Your task to perform on an android device: turn on airplane mode Image 0: 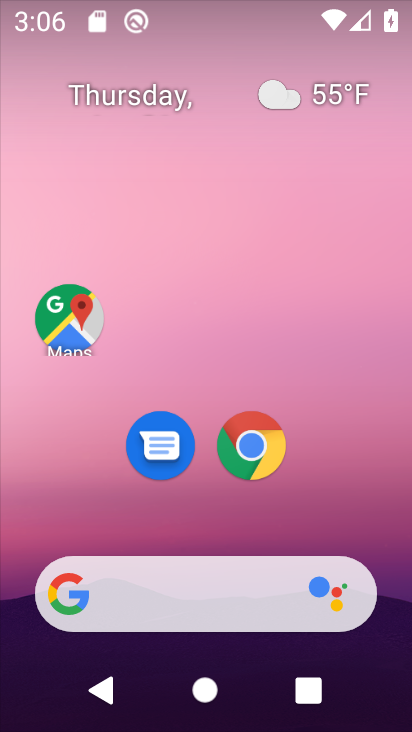
Step 0: drag from (310, 493) to (327, 160)
Your task to perform on an android device: turn on airplane mode Image 1: 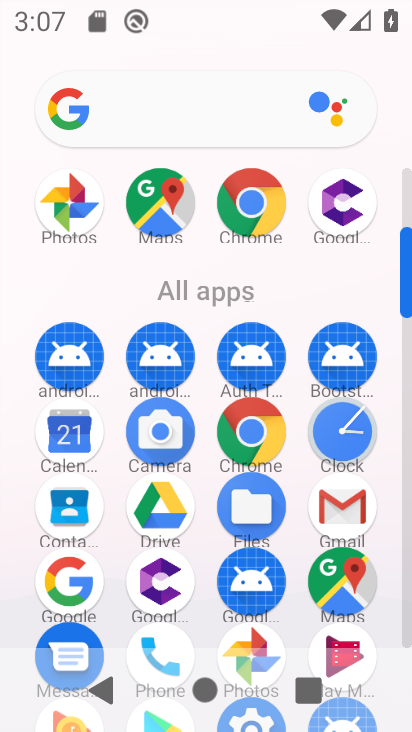
Step 1: drag from (297, 602) to (334, 362)
Your task to perform on an android device: turn on airplane mode Image 2: 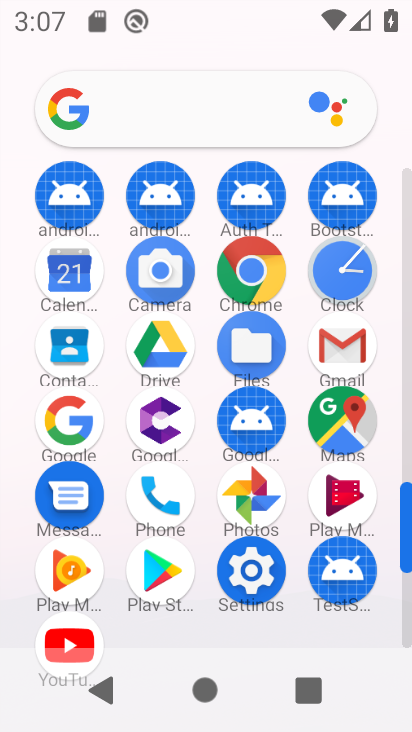
Step 2: click (270, 572)
Your task to perform on an android device: turn on airplane mode Image 3: 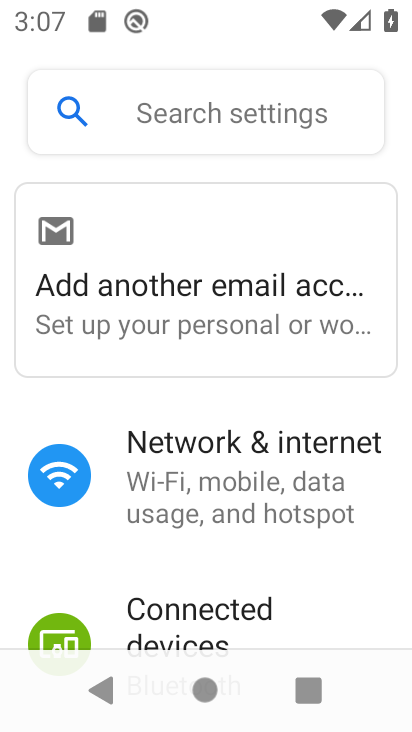
Step 3: click (265, 488)
Your task to perform on an android device: turn on airplane mode Image 4: 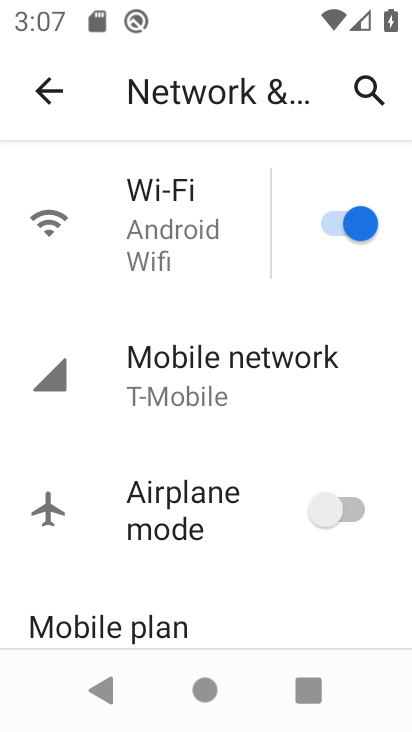
Step 4: click (334, 520)
Your task to perform on an android device: turn on airplane mode Image 5: 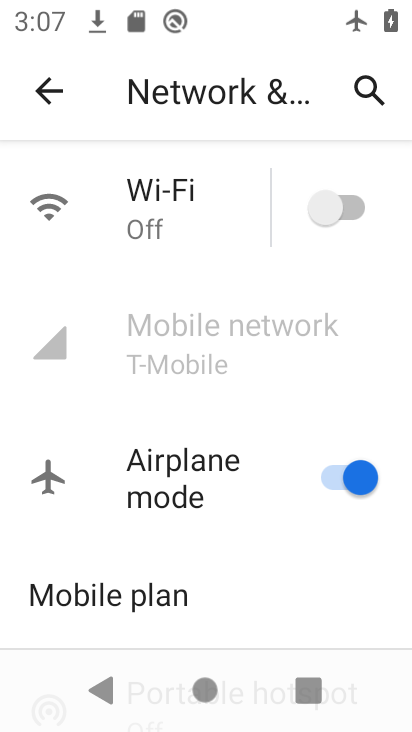
Step 5: task complete